Your task to perform on an android device: Go to Wikipedia Image 0: 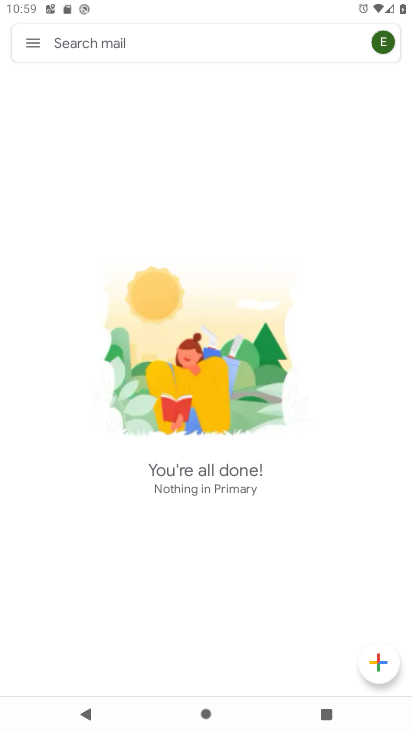
Step 0: press home button
Your task to perform on an android device: Go to Wikipedia Image 1: 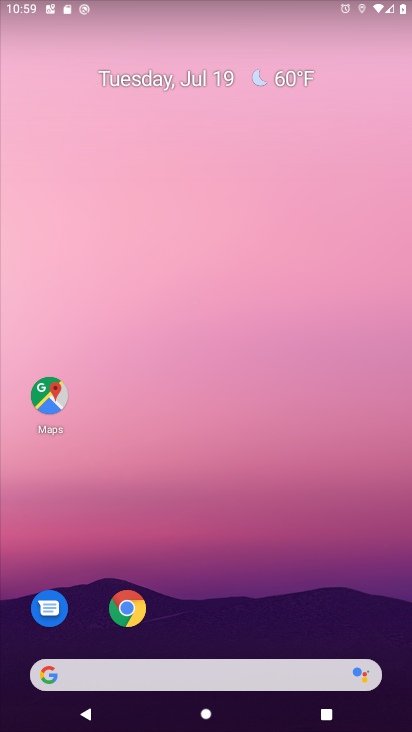
Step 1: click (126, 600)
Your task to perform on an android device: Go to Wikipedia Image 2: 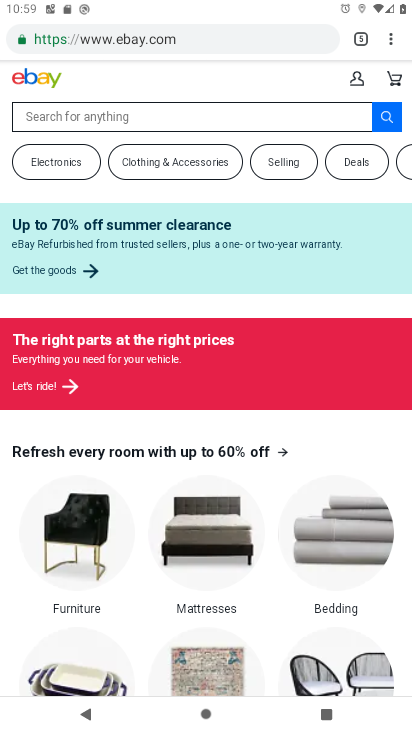
Step 2: click (358, 41)
Your task to perform on an android device: Go to Wikipedia Image 3: 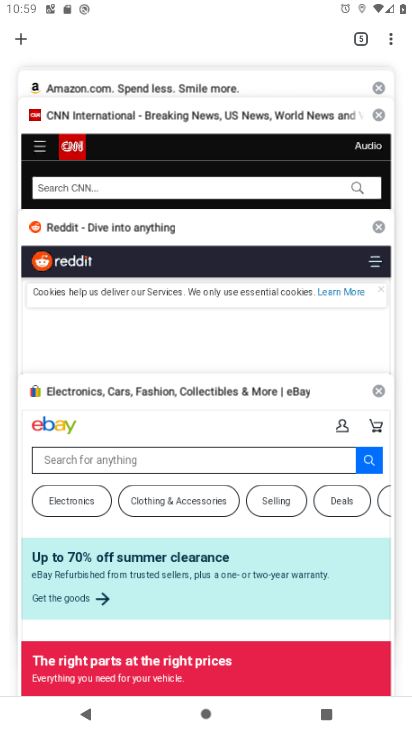
Step 3: click (20, 33)
Your task to perform on an android device: Go to Wikipedia Image 4: 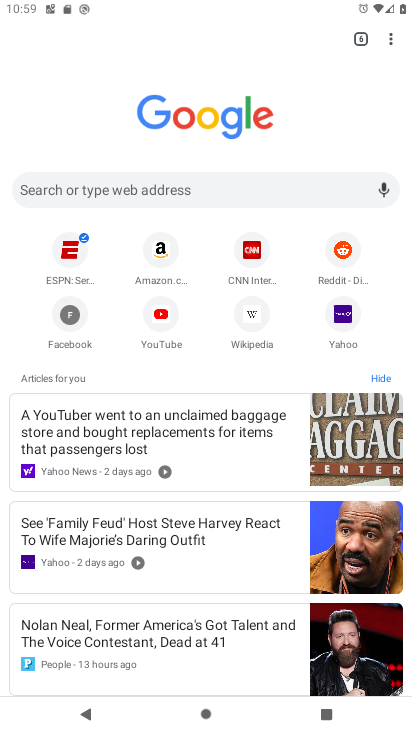
Step 4: click (249, 322)
Your task to perform on an android device: Go to Wikipedia Image 5: 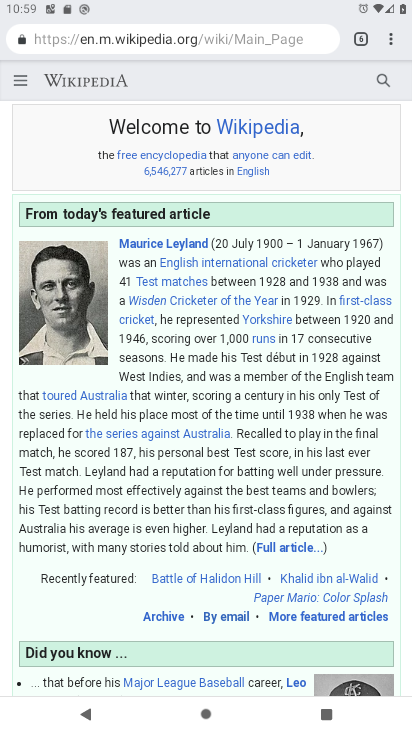
Step 5: task complete